Your task to perform on an android device: set default search engine in the chrome app Image 0: 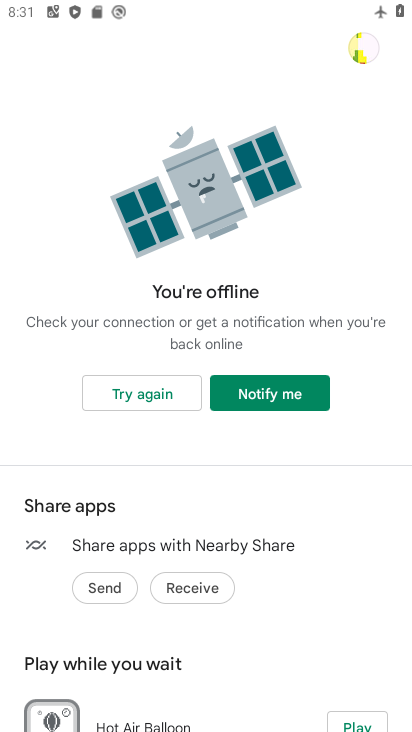
Step 0: press home button
Your task to perform on an android device: set default search engine in the chrome app Image 1: 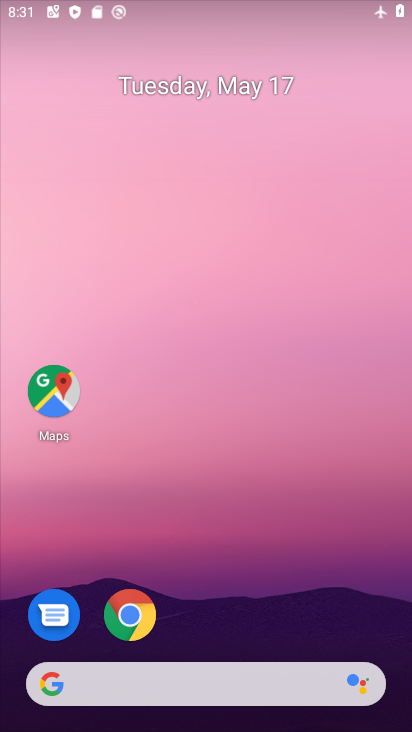
Step 1: drag from (207, 663) to (242, 255)
Your task to perform on an android device: set default search engine in the chrome app Image 2: 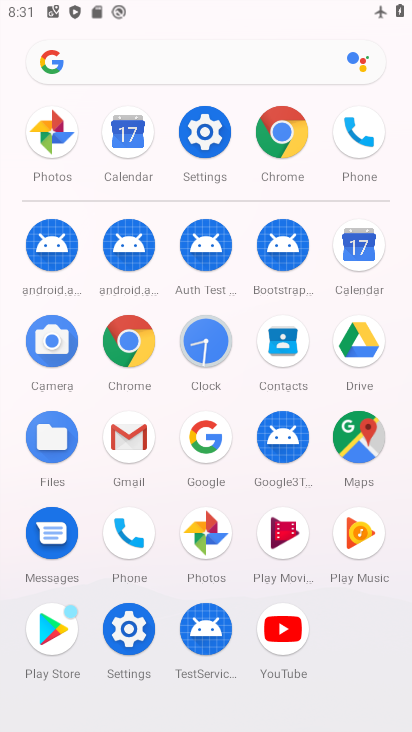
Step 2: click (270, 130)
Your task to perform on an android device: set default search engine in the chrome app Image 3: 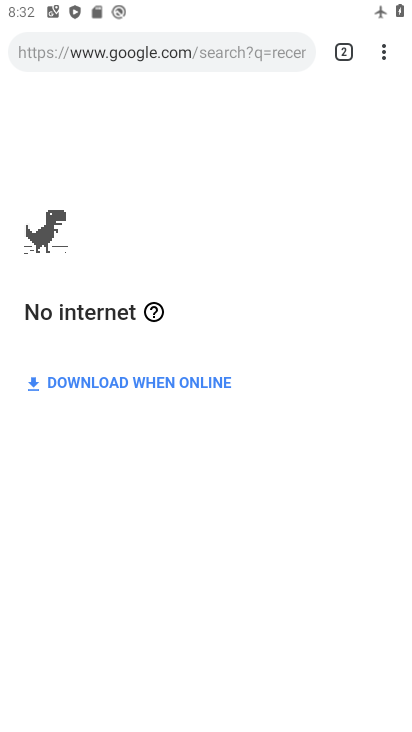
Step 3: click (381, 44)
Your task to perform on an android device: set default search engine in the chrome app Image 4: 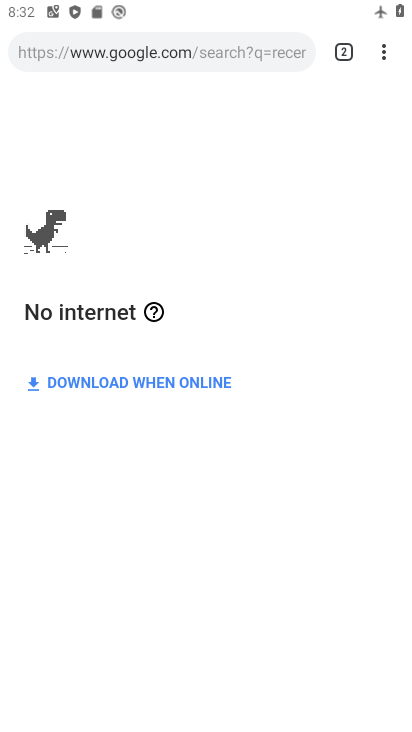
Step 4: click (380, 56)
Your task to perform on an android device: set default search engine in the chrome app Image 5: 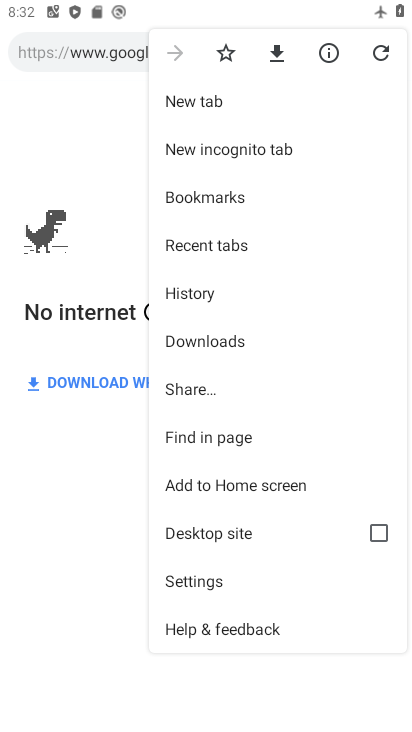
Step 5: click (213, 589)
Your task to perform on an android device: set default search engine in the chrome app Image 6: 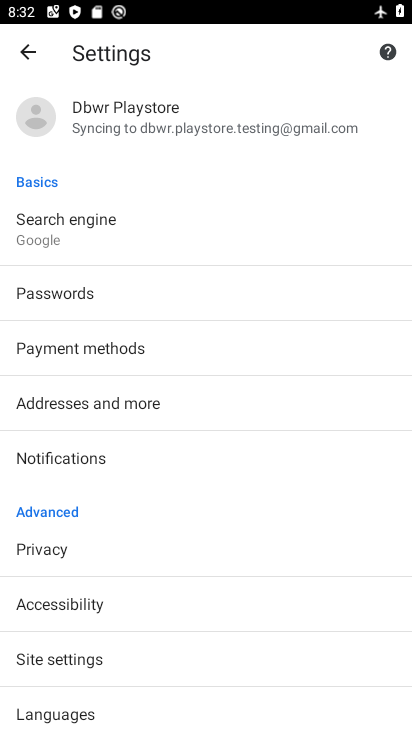
Step 6: click (105, 226)
Your task to perform on an android device: set default search engine in the chrome app Image 7: 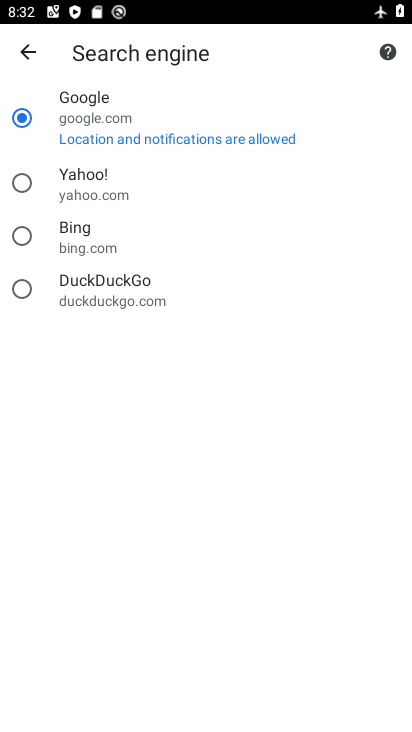
Step 7: click (90, 192)
Your task to perform on an android device: set default search engine in the chrome app Image 8: 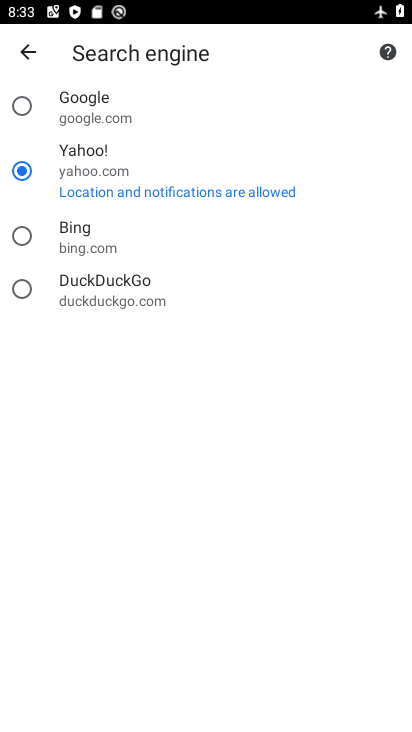
Step 8: task complete